Your task to perform on an android device: Open calendar and show me the third week of next month Image 0: 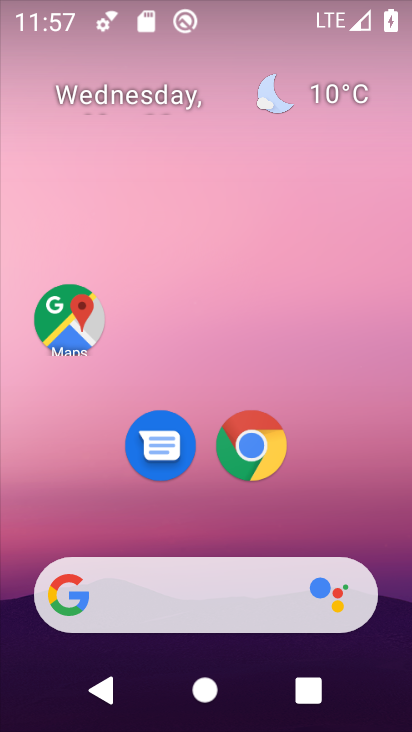
Step 0: drag from (186, 551) to (255, 26)
Your task to perform on an android device: Open calendar and show me the third week of next month Image 1: 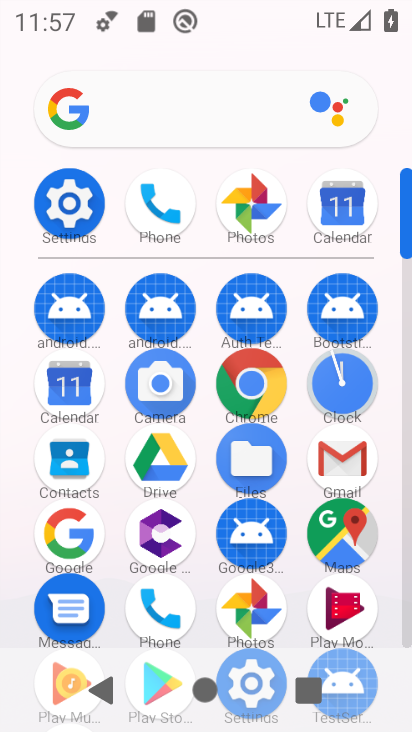
Step 1: click (67, 381)
Your task to perform on an android device: Open calendar and show me the third week of next month Image 2: 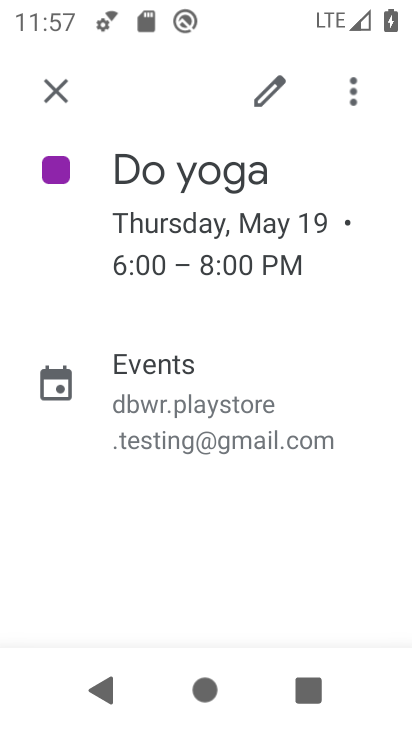
Step 2: click (60, 86)
Your task to perform on an android device: Open calendar and show me the third week of next month Image 3: 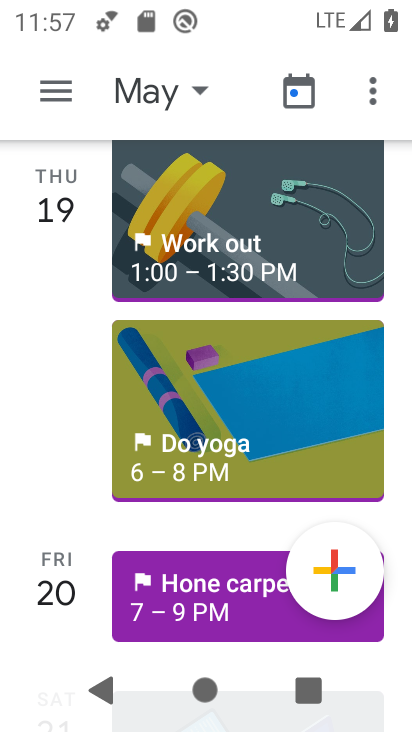
Step 3: click (168, 89)
Your task to perform on an android device: Open calendar and show me the third week of next month Image 4: 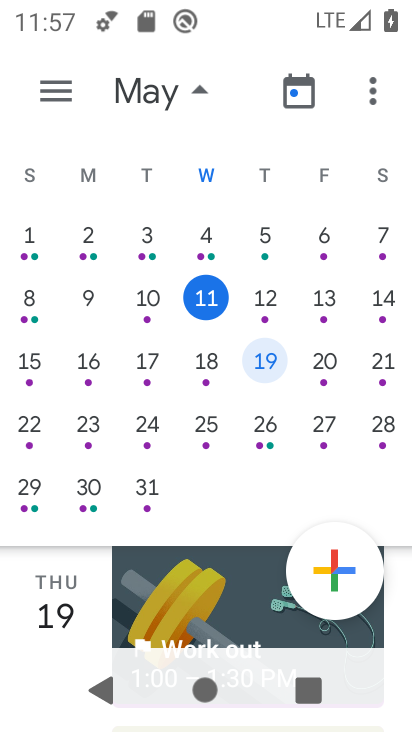
Step 4: click (9, 336)
Your task to perform on an android device: Open calendar and show me the third week of next month Image 5: 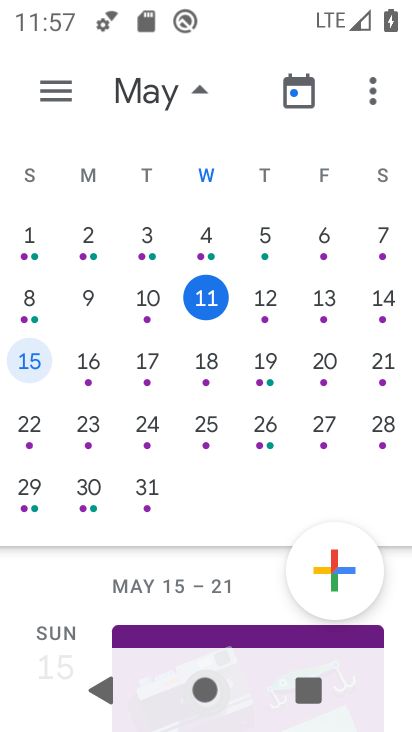
Step 5: drag from (389, 401) to (0, 366)
Your task to perform on an android device: Open calendar and show me the third week of next month Image 6: 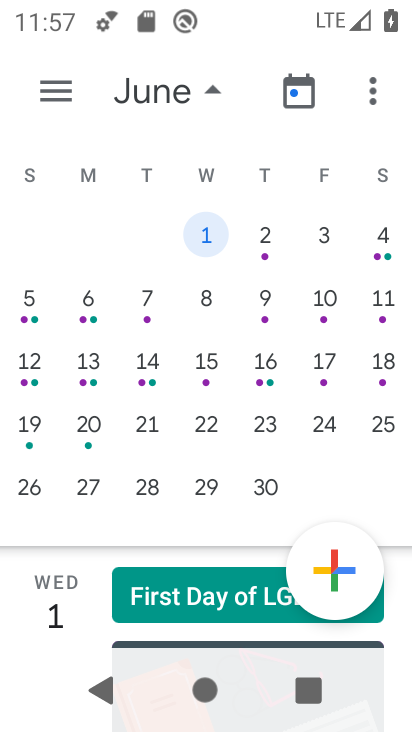
Step 6: click (94, 360)
Your task to perform on an android device: Open calendar and show me the third week of next month Image 7: 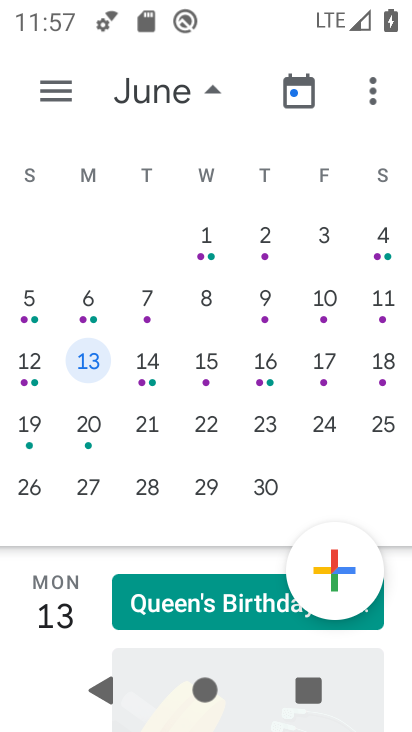
Step 7: task complete